Your task to perform on an android device: Go to eBay Image 0: 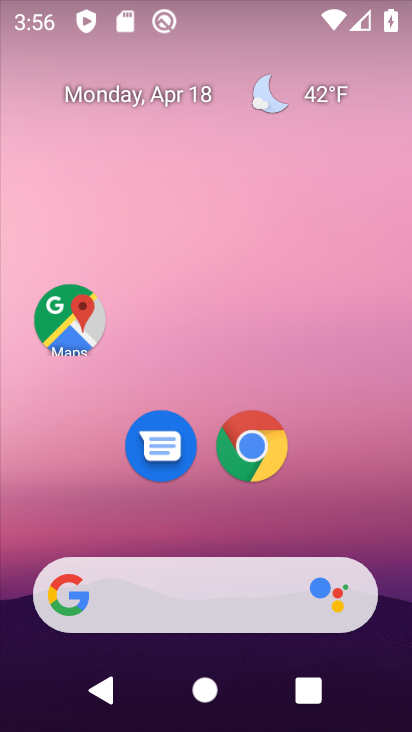
Step 0: click (253, 447)
Your task to perform on an android device: Go to eBay Image 1: 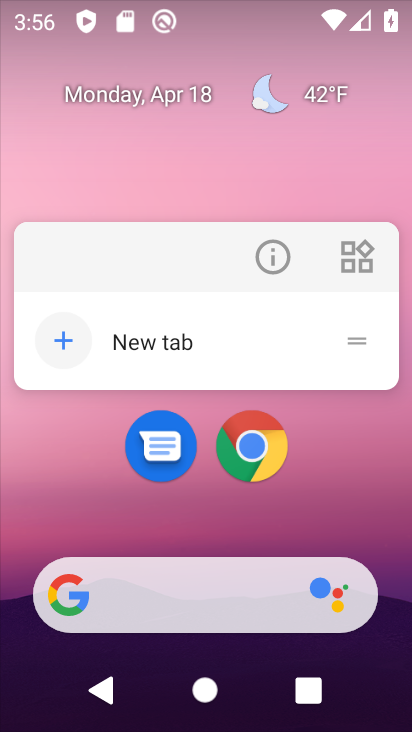
Step 1: click (245, 441)
Your task to perform on an android device: Go to eBay Image 2: 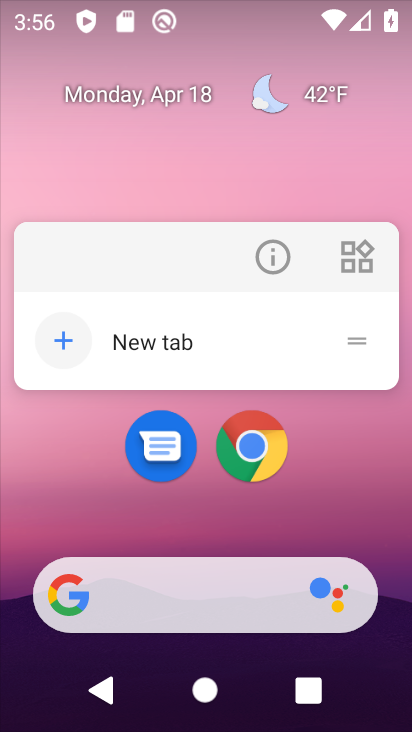
Step 2: drag from (322, 494) to (265, 4)
Your task to perform on an android device: Go to eBay Image 3: 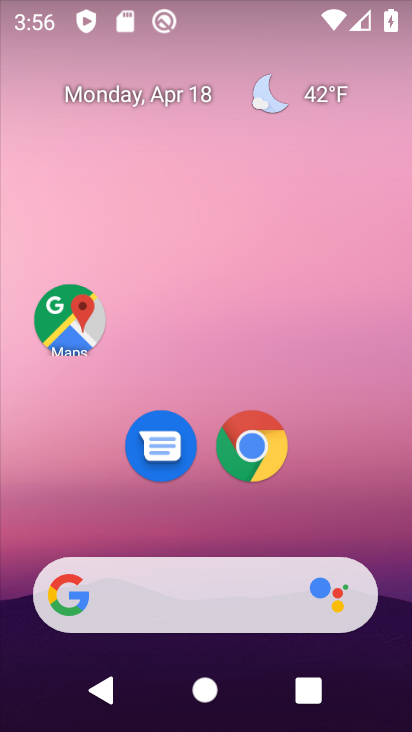
Step 3: drag from (315, 457) to (350, 6)
Your task to perform on an android device: Go to eBay Image 4: 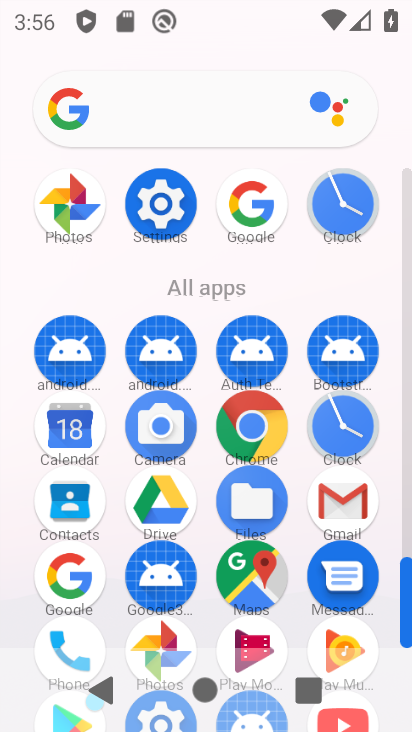
Step 4: drag from (379, 526) to (385, 233)
Your task to perform on an android device: Go to eBay Image 5: 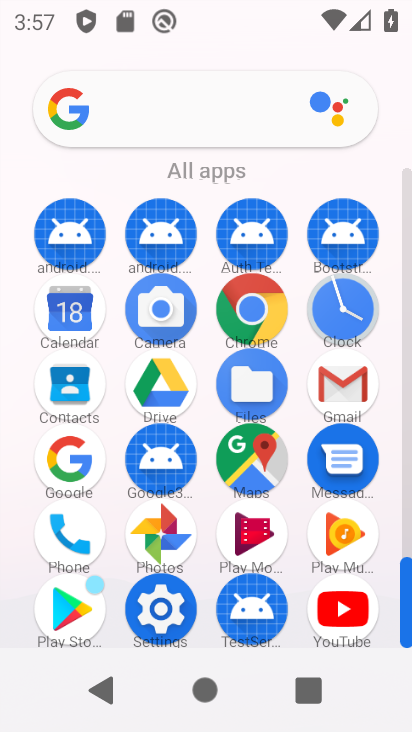
Step 5: click (249, 307)
Your task to perform on an android device: Go to eBay Image 6: 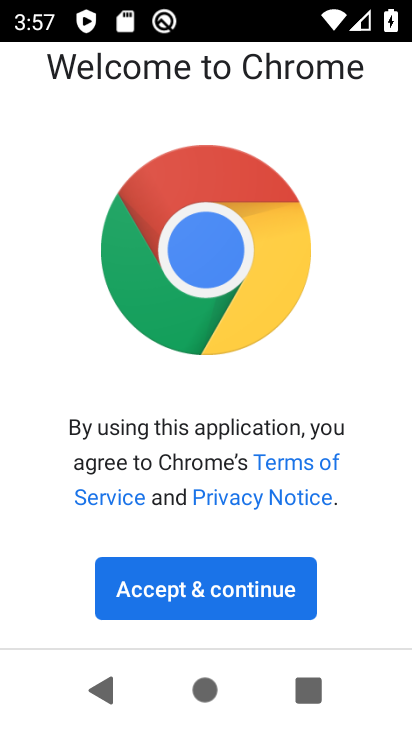
Step 6: click (285, 597)
Your task to perform on an android device: Go to eBay Image 7: 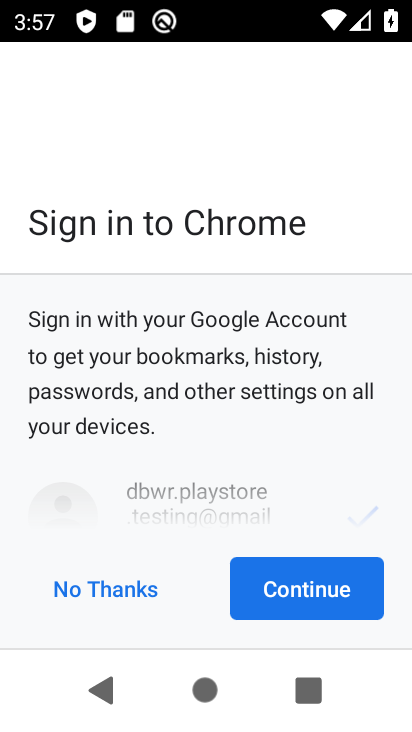
Step 7: click (287, 597)
Your task to perform on an android device: Go to eBay Image 8: 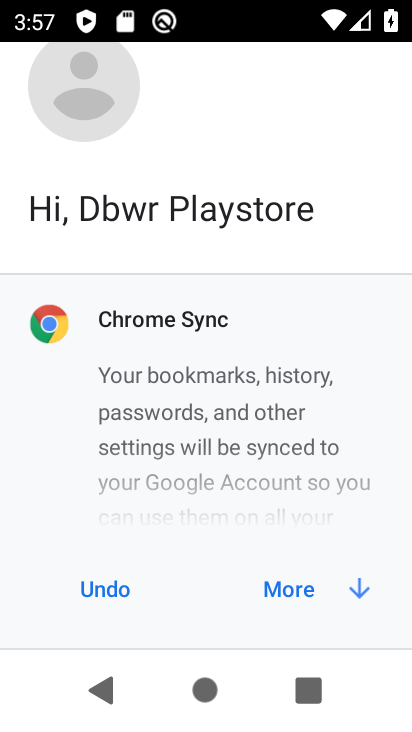
Step 8: click (287, 597)
Your task to perform on an android device: Go to eBay Image 9: 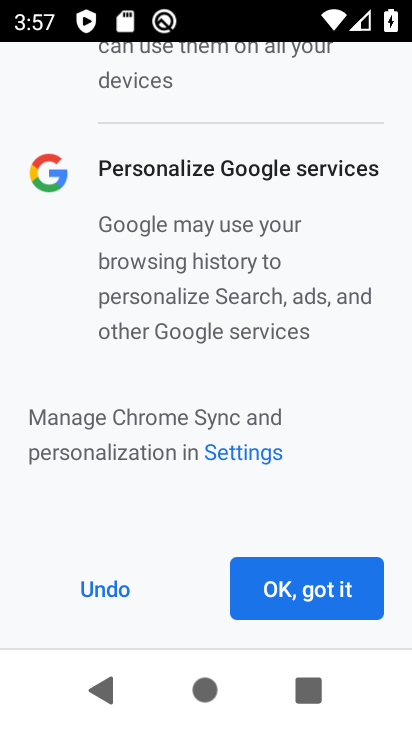
Step 9: click (295, 586)
Your task to perform on an android device: Go to eBay Image 10: 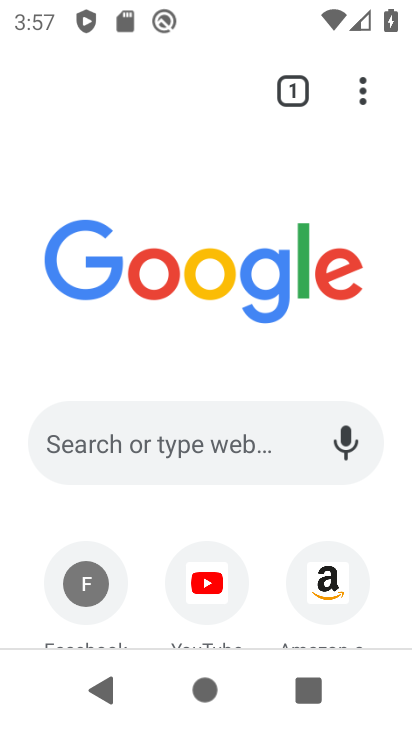
Step 10: click (270, 450)
Your task to perform on an android device: Go to eBay Image 11: 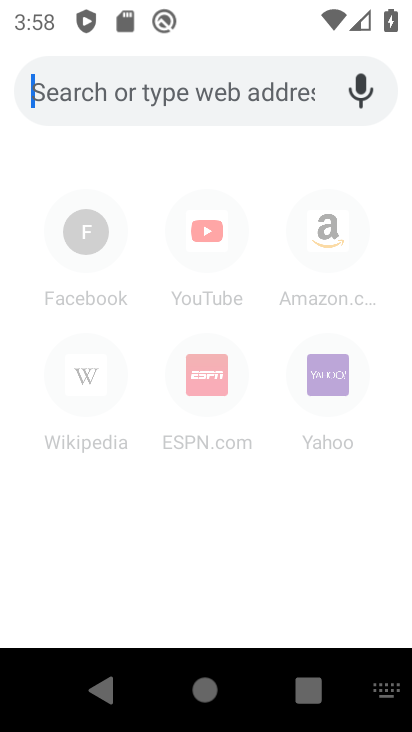
Step 11: type "ebay"
Your task to perform on an android device: Go to eBay Image 12: 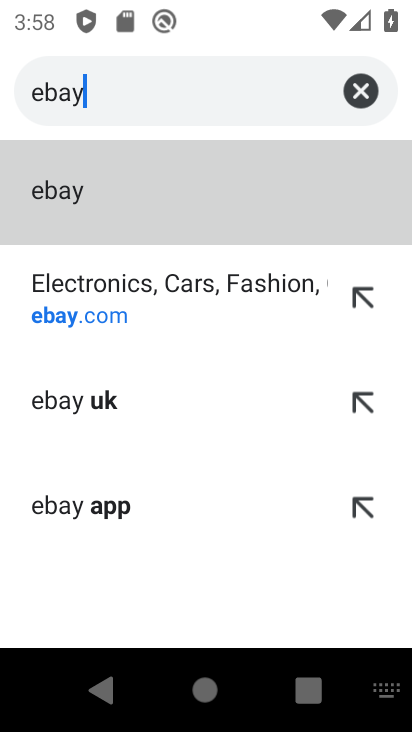
Step 12: click (105, 286)
Your task to perform on an android device: Go to eBay Image 13: 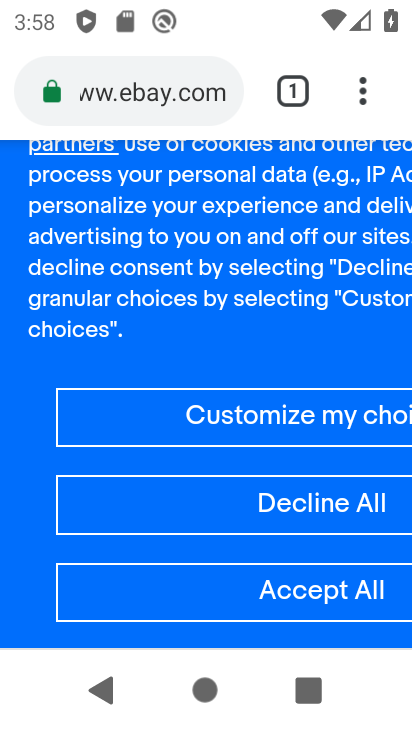
Step 13: task complete